Your task to perform on an android device: add a contact Image 0: 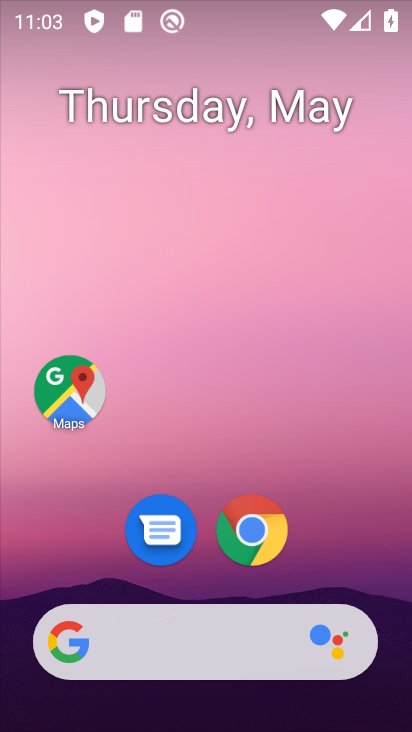
Step 0: drag from (283, 715) to (195, 181)
Your task to perform on an android device: add a contact Image 1: 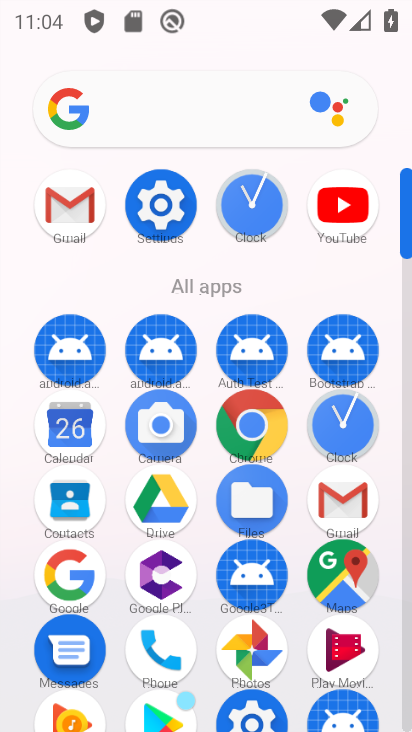
Step 1: drag from (273, 608) to (259, 296)
Your task to perform on an android device: add a contact Image 2: 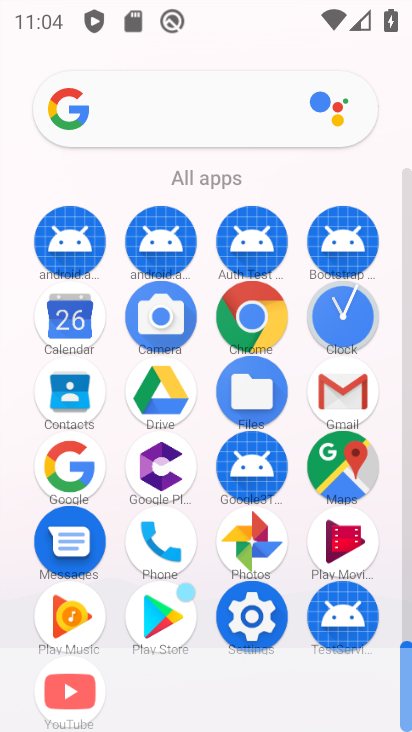
Step 2: drag from (282, 536) to (282, 221)
Your task to perform on an android device: add a contact Image 3: 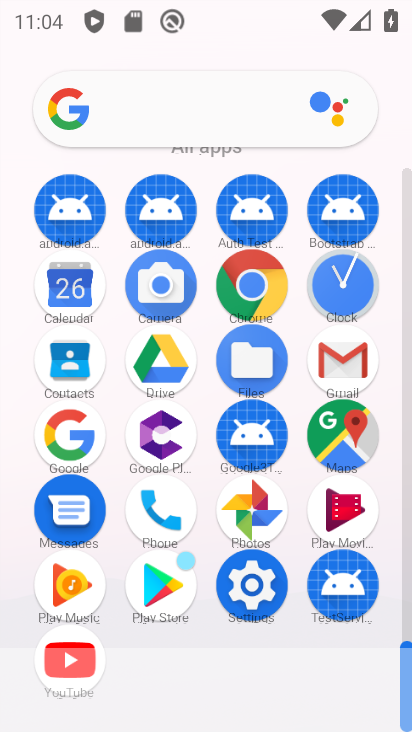
Step 3: drag from (275, 558) to (281, 140)
Your task to perform on an android device: add a contact Image 4: 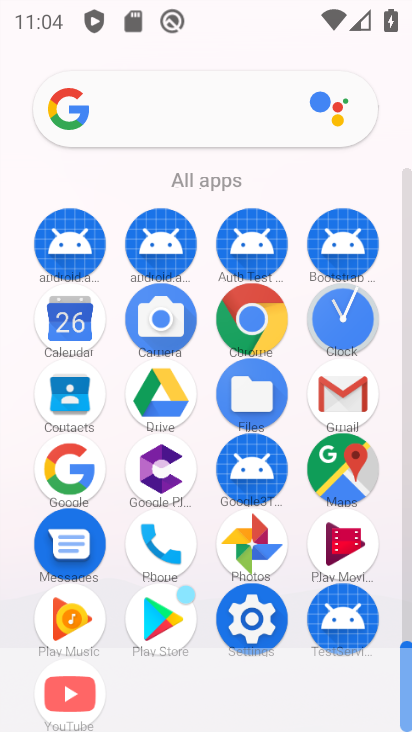
Step 4: click (78, 402)
Your task to perform on an android device: add a contact Image 5: 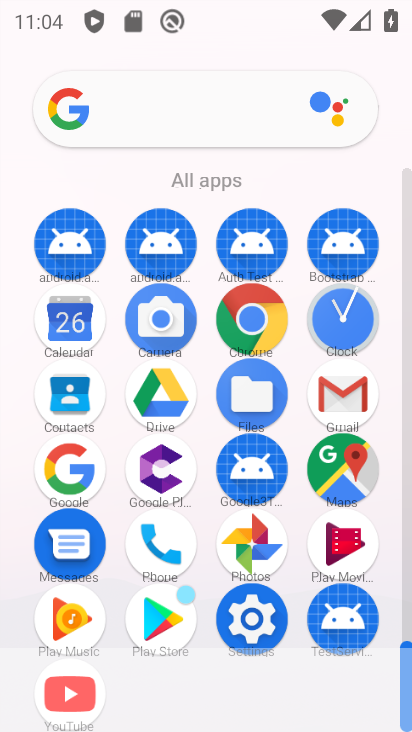
Step 5: click (78, 402)
Your task to perform on an android device: add a contact Image 6: 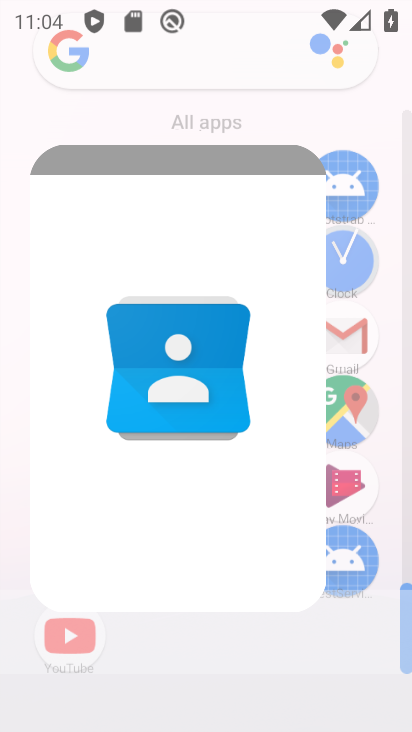
Step 6: click (78, 402)
Your task to perform on an android device: add a contact Image 7: 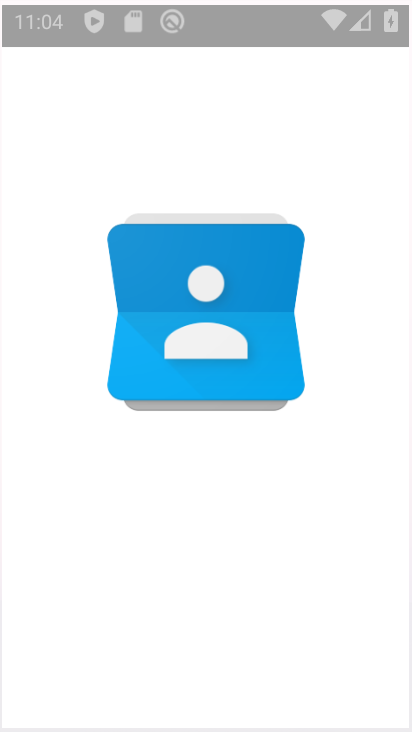
Step 7: click (78, 402)
Your task to perform on an android device: add a contact Image 8: 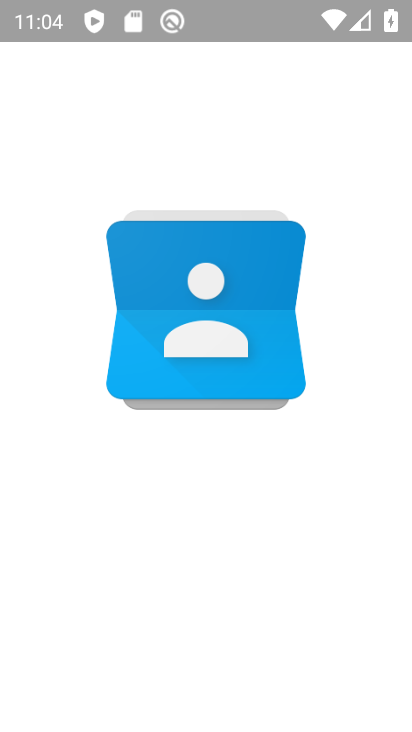
Step 8: click (78, 402)
Your task to perform on an android device: add a contact Image 9: 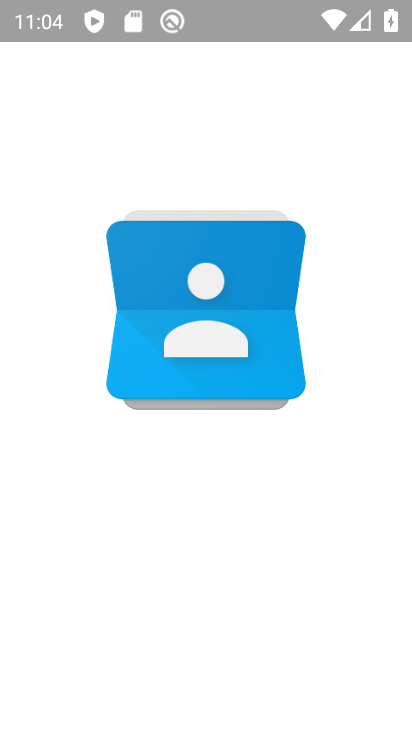
Step 9: click (78, 402)
Your task to perform on an android device: add a contact Image 10: 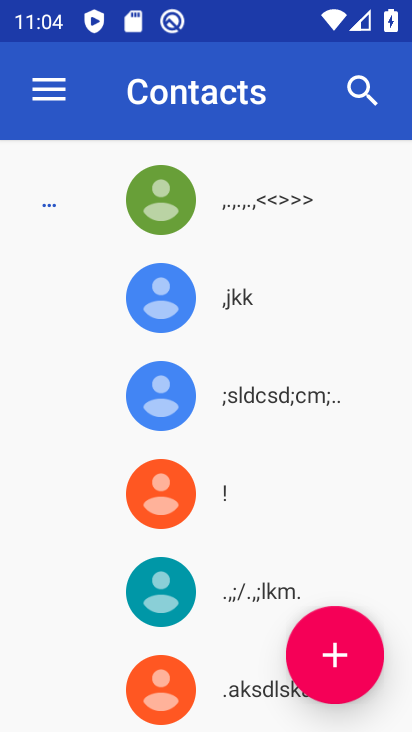
Step 10: click (347, 660)
Your task to perform on an android device: add a contact Image 11: 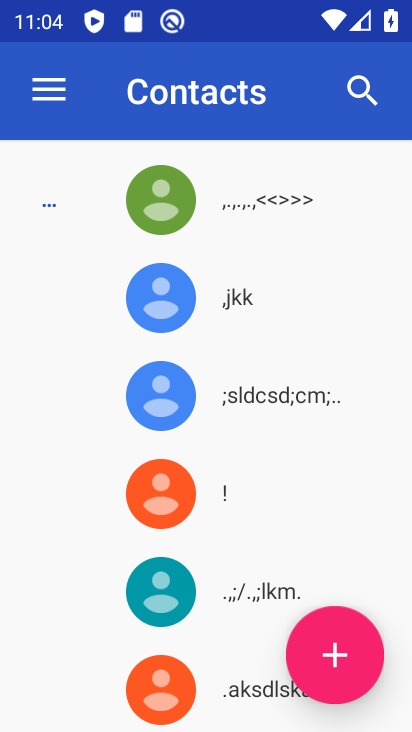
Step 11: click (346, 660)
Your task to perform on an android device: add a contact Image 12: 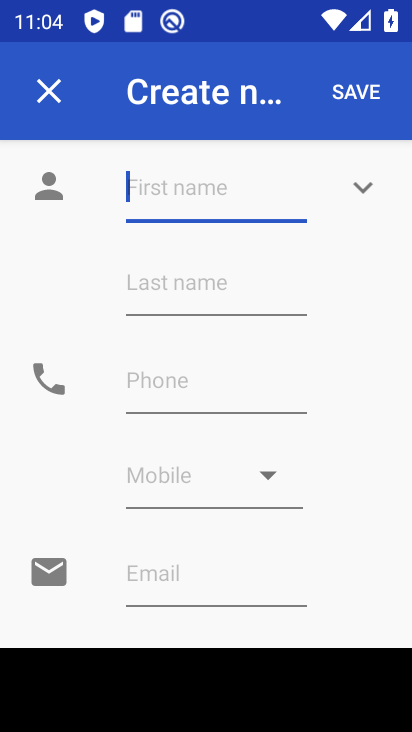
Step 12: type "hfsfifhviufviu"
Your task to perform on an android device: add a contact Image 13: 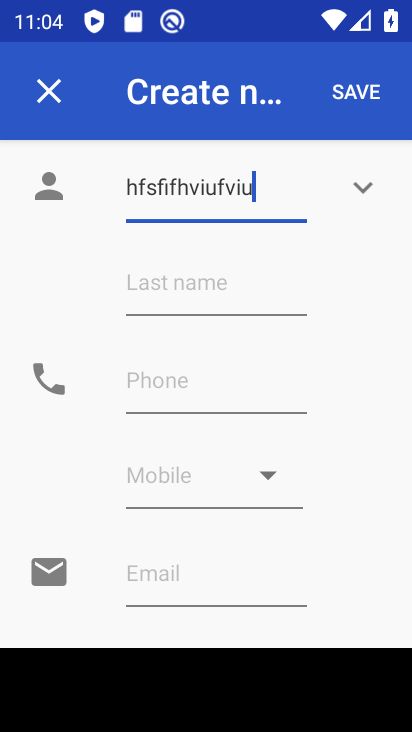
Step 13: click (149, 371)
Your task to perform on an android device: add a contact Image 14: 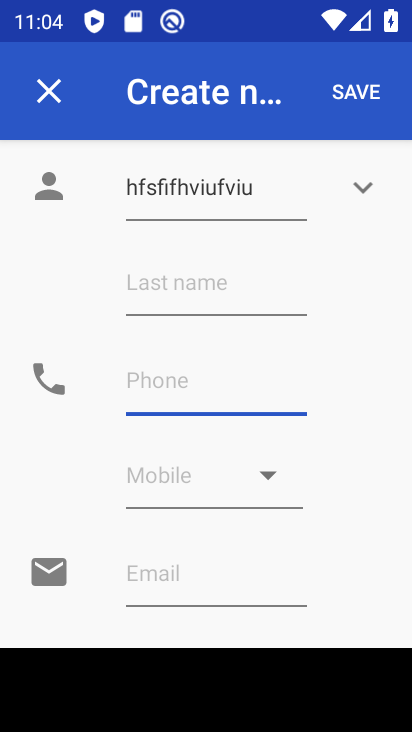
Step 14: type "56786868788"
Your task to perform on an android device: add a contact Image 15: 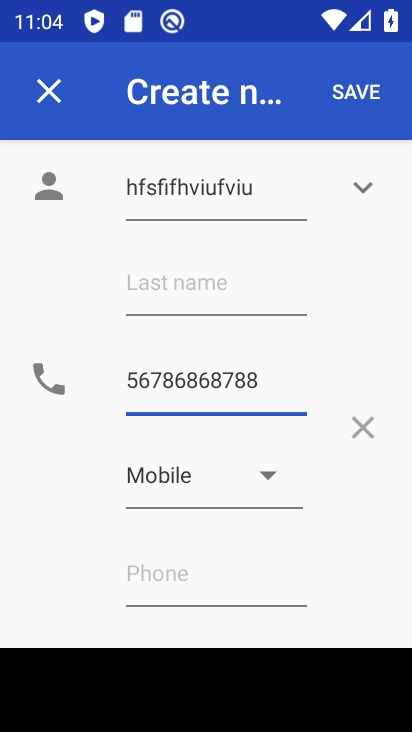
Step 15: click (366, 89)
Your task to perform on an android device: add a contact Image 16: 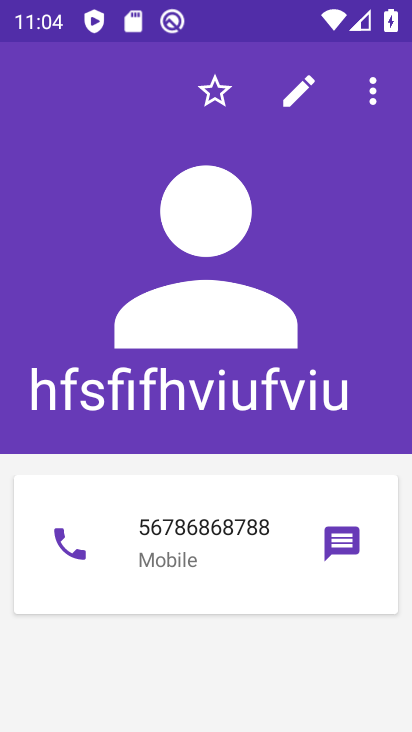
Step 16: task complete